Your task to perform on an android device: set an alarm Image 0: 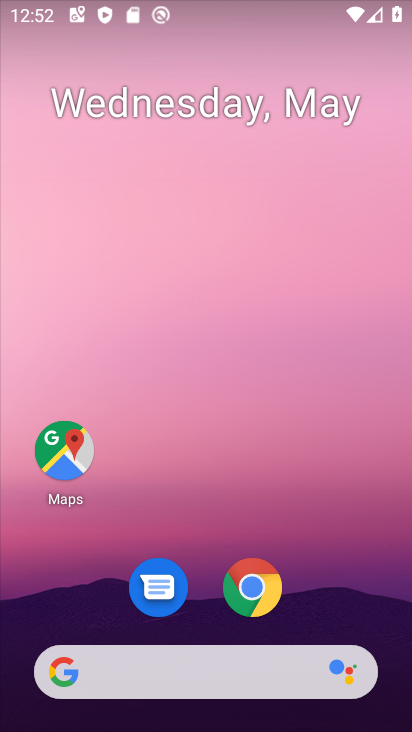
Step 0: drag from (394, 621) to (386, 345)
Your task to perform on an android device: set an alarm Image 1: 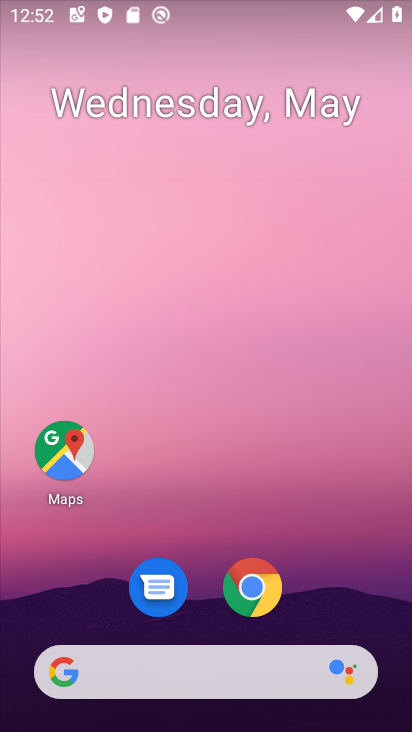
Step 1: drag from (382, 614) to (375, 303)
Your task to perform on an android device: set an alarm Image 2: 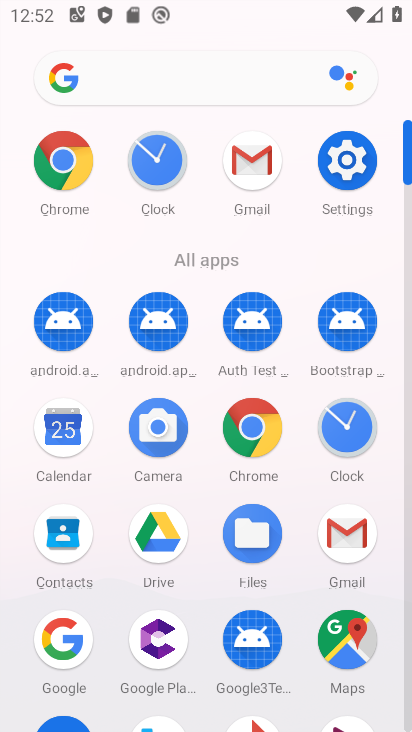
Step 2: click (348, 454)
Your task to perform on an android device: set an alarm Image 3: 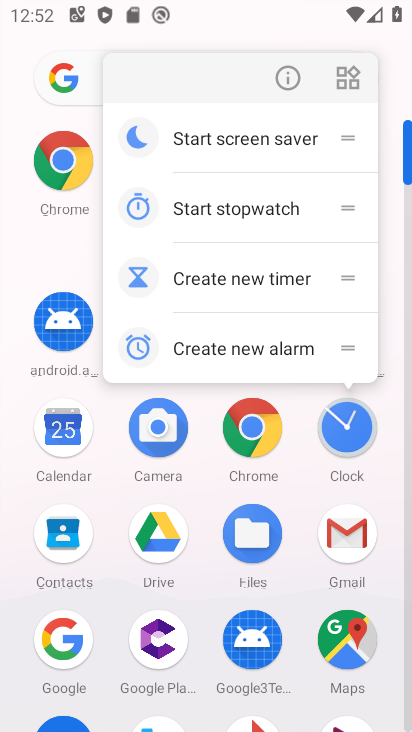
Step 3: click (348, 454)
Your task to perform on an android device: set an alarm Image 4: 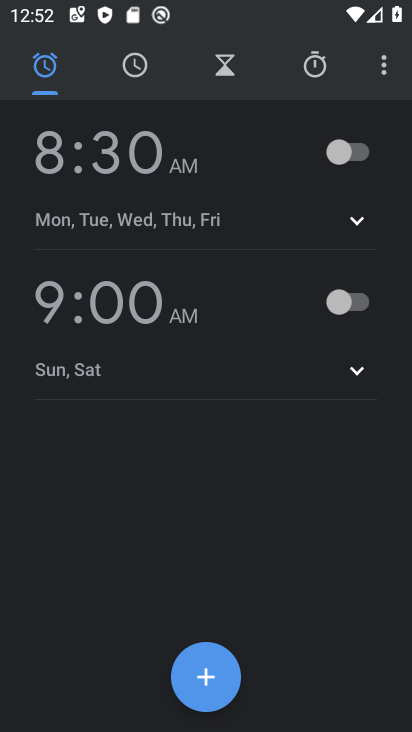
Step 4: click (221, 662)
Your task to perform on an android device: set an alarm Image 5: 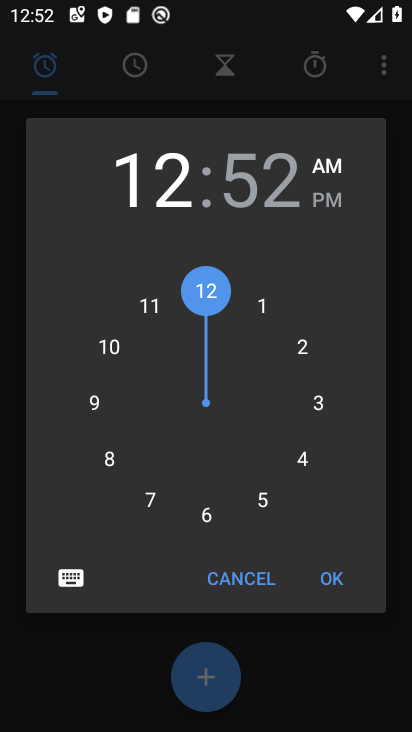
Step 5: click (329, 581)
Your task to perform on an android device: set an alarm Image 6: 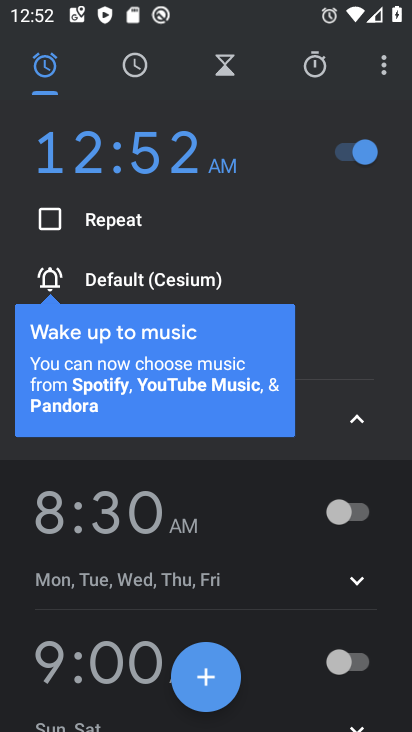
Step 6: task complete